Your task to perform on an android device: What's the weather? Image 0: 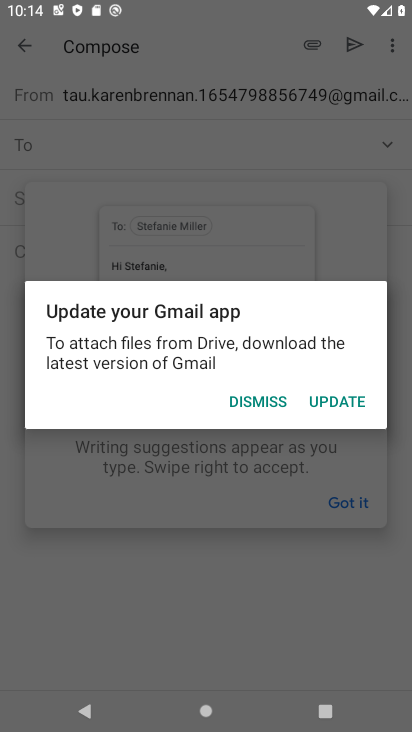
Step 0: press home button
Your task to perform on an android device: What's the weather? Image 1: 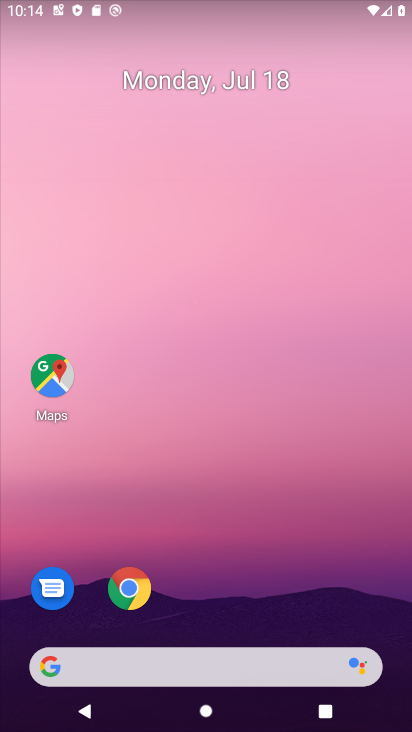
Step 1: drag from (234, 642) to (221, 175)
Your task to perform on an android device: What's the weather? Image 2: 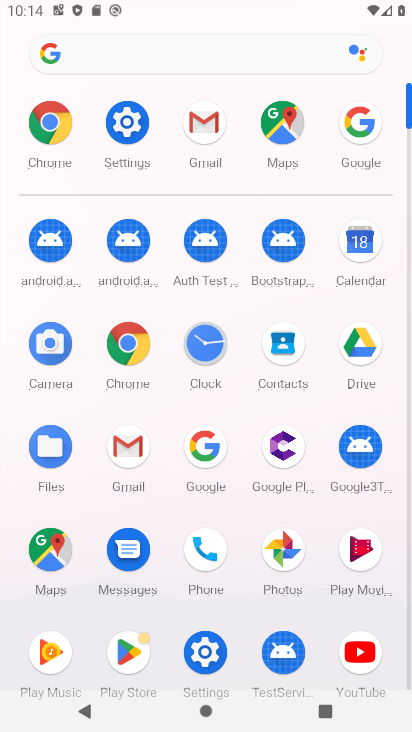
Step 2: click (204, 438)
Your task to perform on an android device: What's the weather? Image 3: 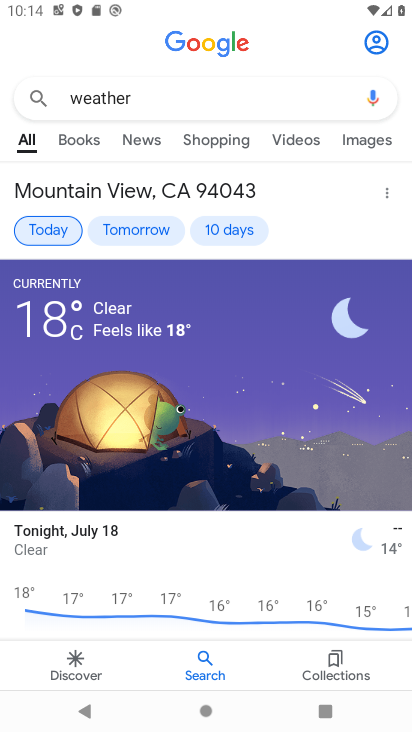
Step 3: task complete